Your task to perform on an android device: turn on the 12-hour format for clock Image 0: 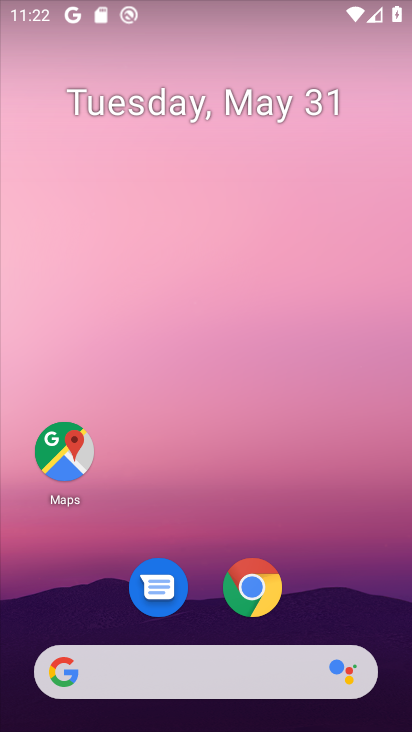
Step 0: drag from (325, 575) to (244, 162)
Your task to perform on an android device: turn on the 12-hour format for clock Image 1: 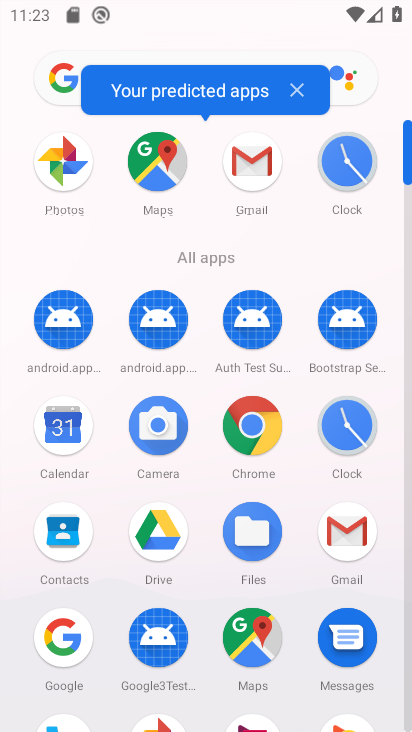
Step 1: click (346, 161)
Your task to perform on an android device: turn on the 12-hour format for clock Image 2: 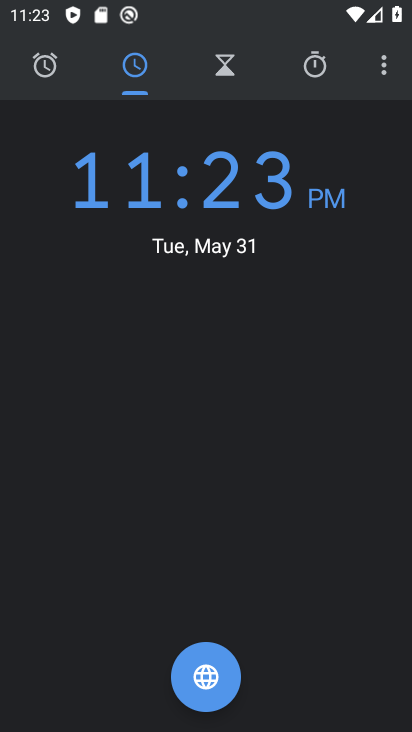
Step 2: click (385, 66)
Your task to perform on an android device: turn on the 12-hour format for clock Image 3: 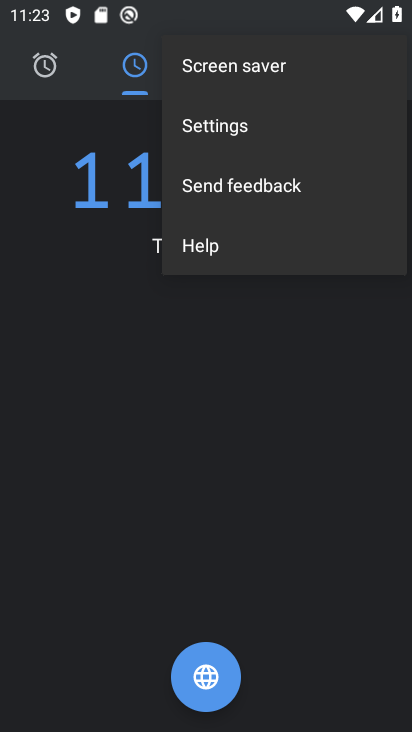
Step 3: click (243, 122)
Your task to perform on an android device: turn on the 12-hour format for clock Image 4: 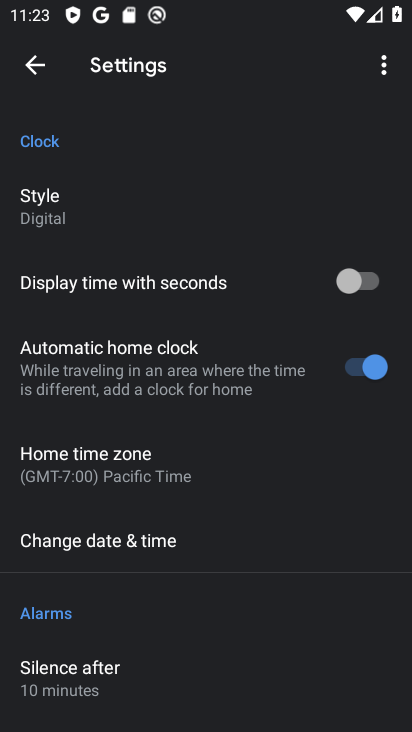
Step 4: click (110, 541)
Your task to perform on an android device: turn on the 12-hour format for clock Image 5: 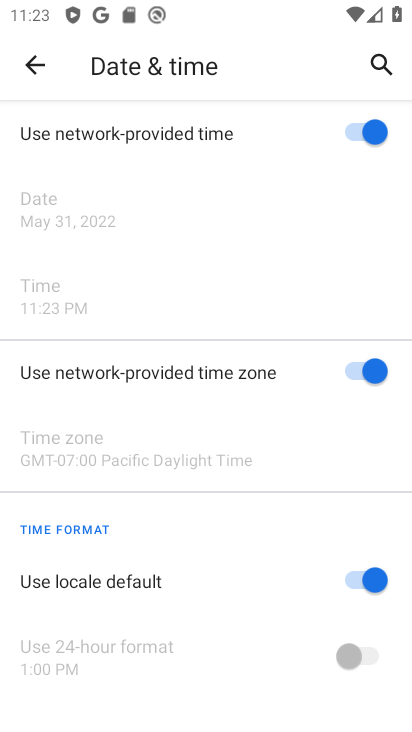
Step 5: task complete